Your task to perform on an android device: Go to battery settings Image 0: 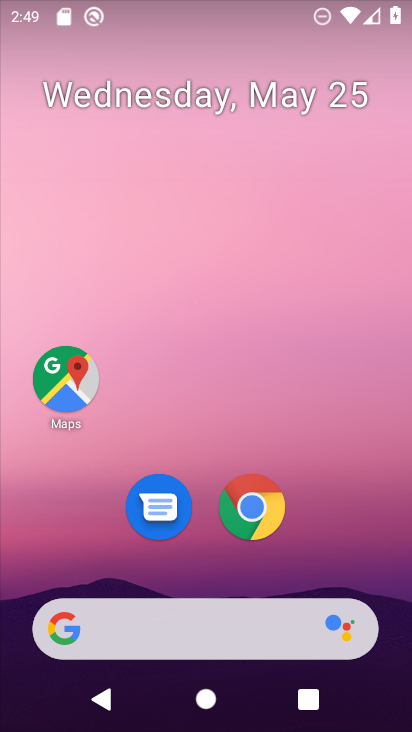
Step 0: drag from (225, 617) to (241, 248)
Your task to perform on an android device: Go to battery settings Image 1: 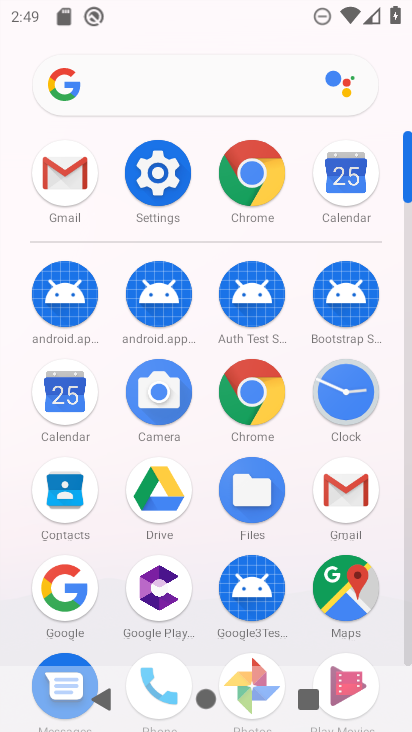
Step 1: click (152, 168)
Your task to perform on an android device: Go to battery settings Image 2: 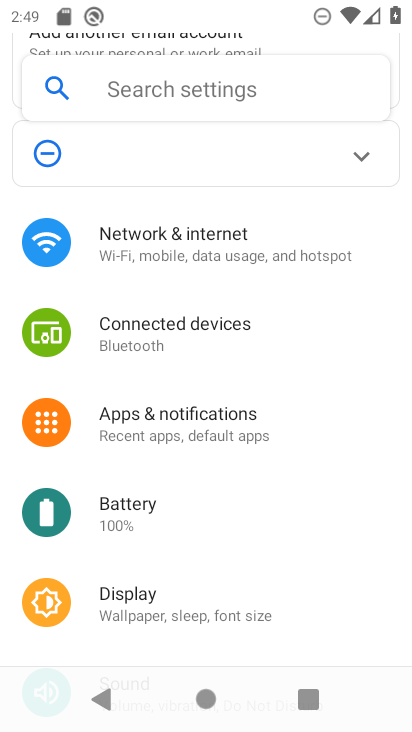
Step 2: click (177, 520)
Your task to perform on an android device: Go to battery settings Image 3: 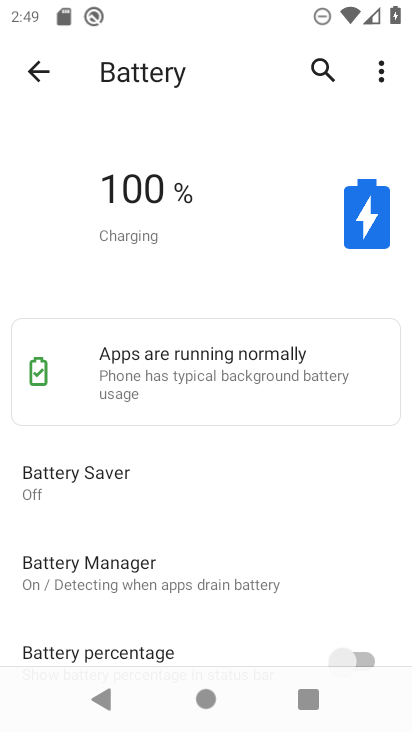
Step 3: task complete